Your task to perform on an android device: Open my contact list Image 0: 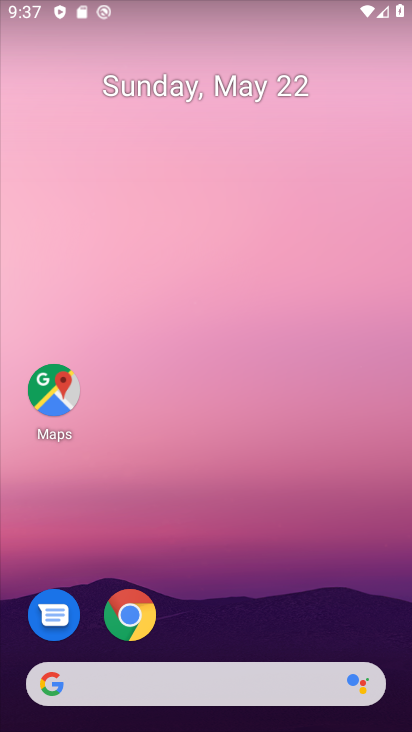
Step 0: drag from (320, 606) to (283, 252)
Your task to perform on an android device: Open my contact list Image 1: 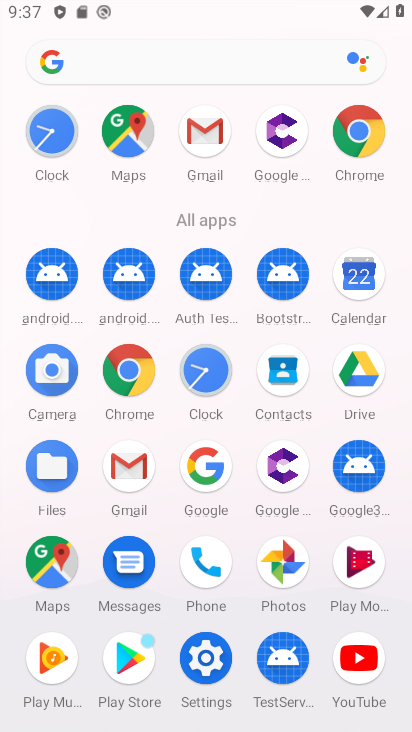
Step 1: click (278, 372)
Your task to perform on an android device: Open my contact list Image 2: 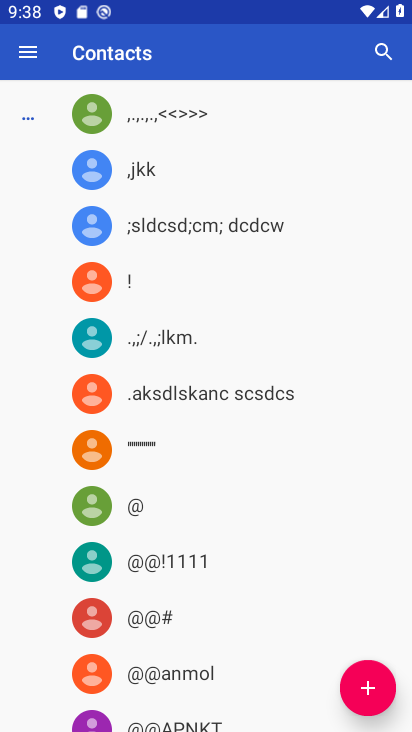
Step 2: task complete